Your task to perform on an android device: check the backup settings in the google photos Image 0: 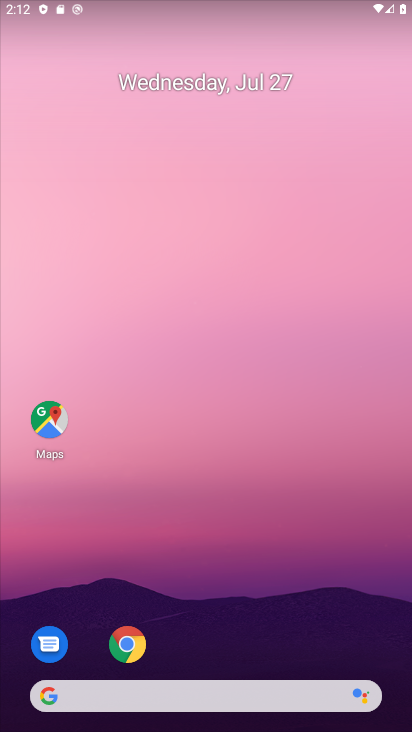
Step 0: drag from (223, 659) to (228, 146)
Your task to perform on an android device: check the backup settings in the google photos Image 1: 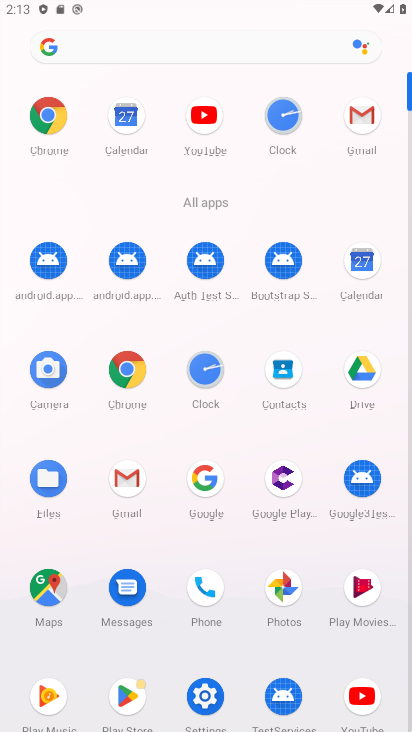
Step 1: click (276, 587)
Your task to perform on an android device: check the backup settings in the google photos Image 2: 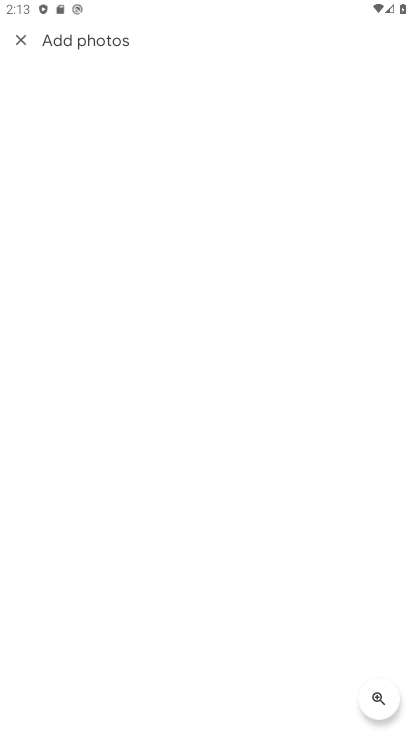
Step 2: click (21, 42)
Your task to perform on an android device: check the backup settings in the google photos Image 3: 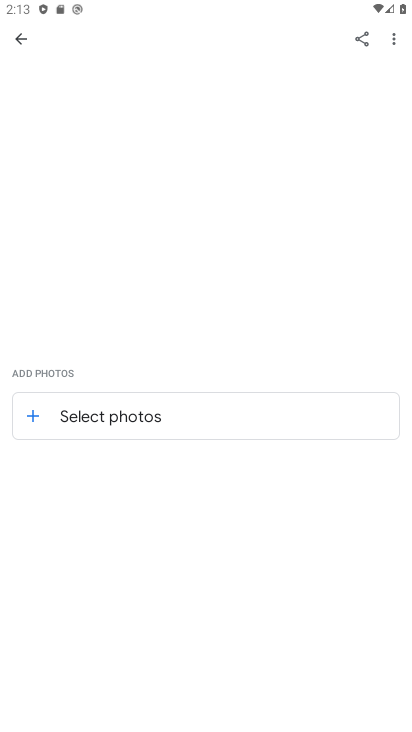
Step 3: click (21, 42)
Your task to perform on an android device: check the backup settings in the google photos Image 4: 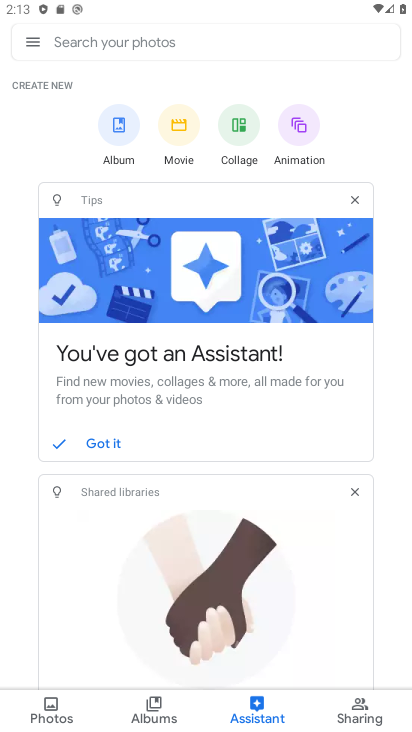
Step 4: click (32, 40)
Your task to perform on an android device: check the backup settings in the google photos Image 5: 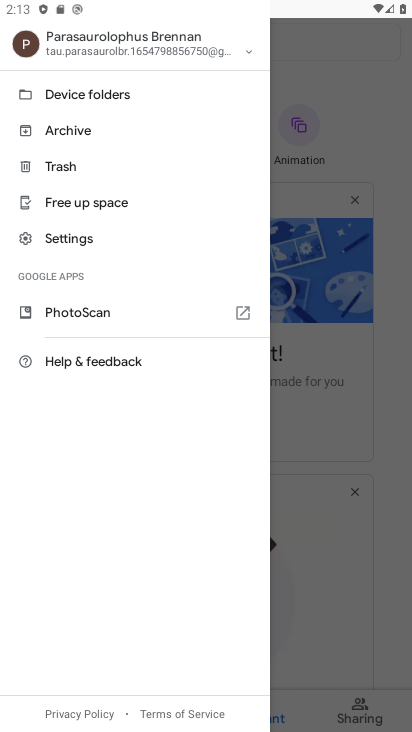
Step 5: click (105, 231)
Your task to perform on an android device: check the backup settings in the google photos Image 6: 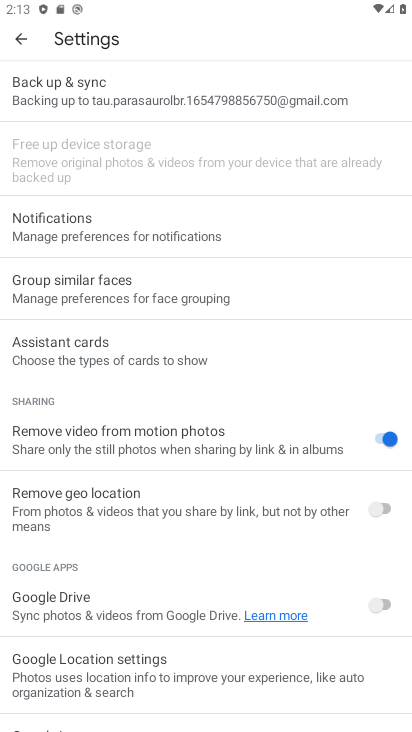
Step 6: click (105, 98)
Your task to perform on an android device: check the backup settings in the google photos Image 7: 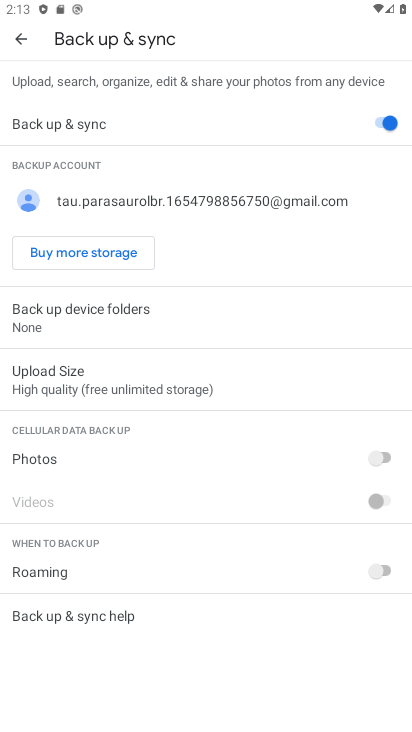
Step 7: task complete